Your task to perform on an android device: Open calendar and show me the fourth week of next month Image 0: 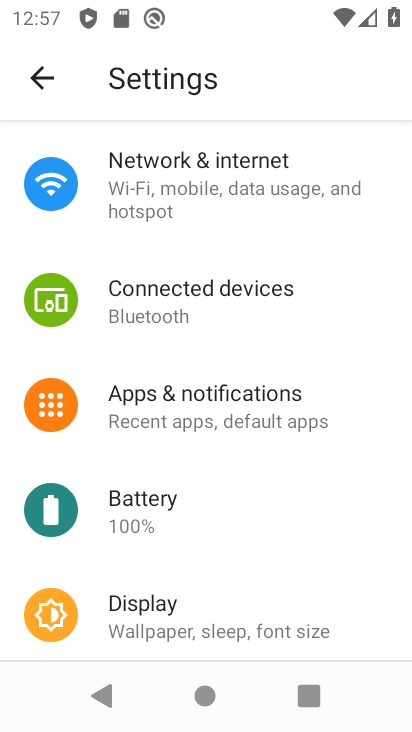
Step 0: press back button
Your task to perform on an android device: Open calendar and show me the fourth week of next month Image 1: 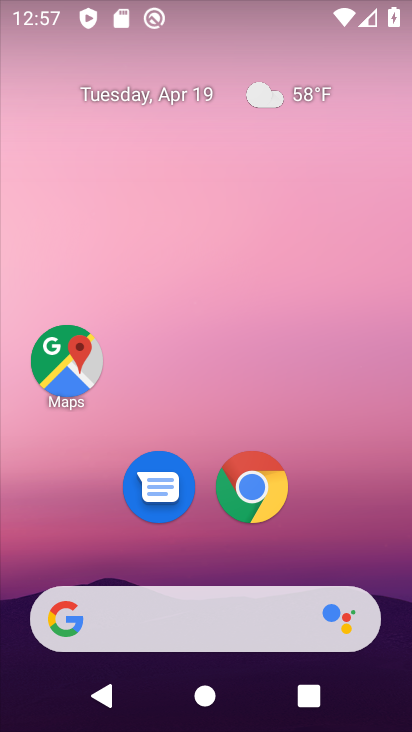
Step 1: drag from (204, 721) to (207, 29)
Your task to perform on an android device: Open calendar and show me the fourth week of next month Image 2: 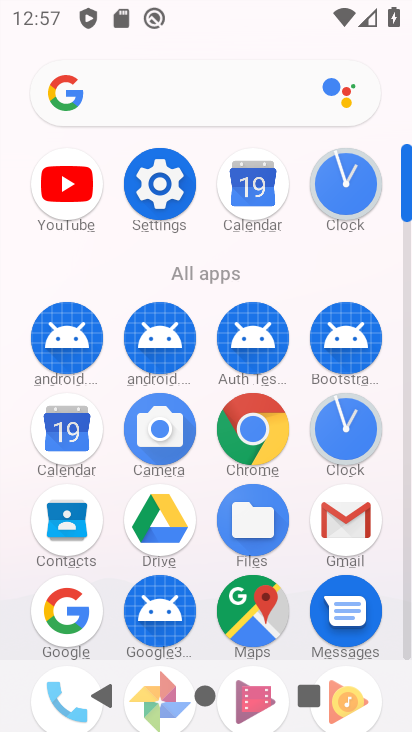
Step 2: drag from (205, 646) to (185, 211)
Your task to perform on an android device: Open calendar and show me the fourth week of next month Image 3: 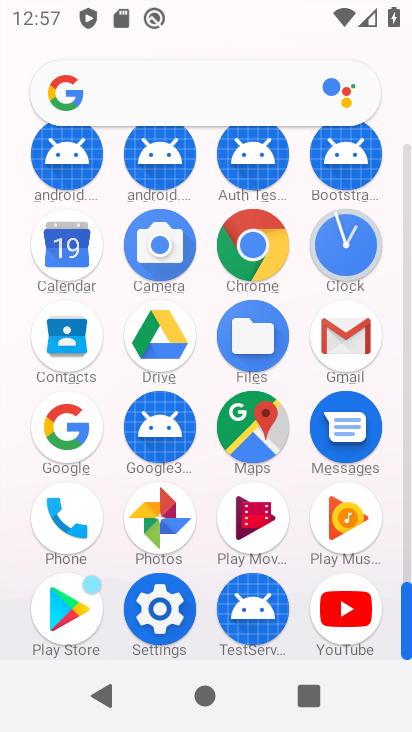
Step 3: click (71, 251)
Your task to perform on an android device: Open calendar and show me the fourth week of next month Image 4: 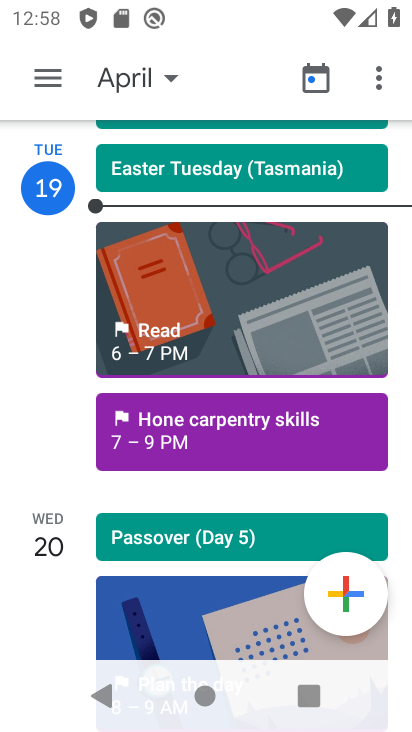
Step 4: click (136, 77)
Your task to perform on an android device: Open calendar and show me the fourth week of next month Image 5: 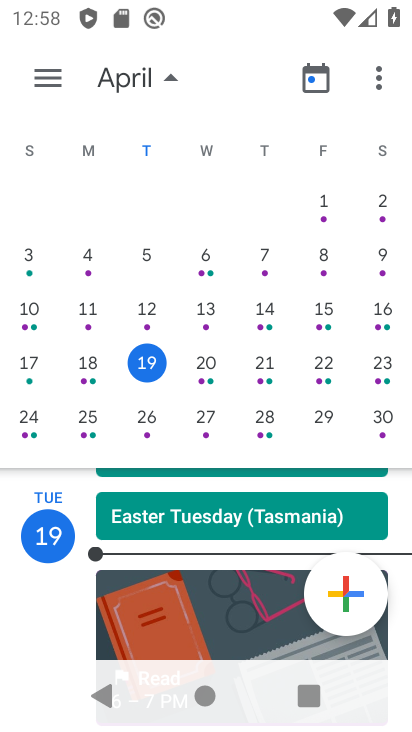
Step 5: click (89, 415)
Your task to perform on an android device: Open calendar and show me the fourth week of next month Image 6: 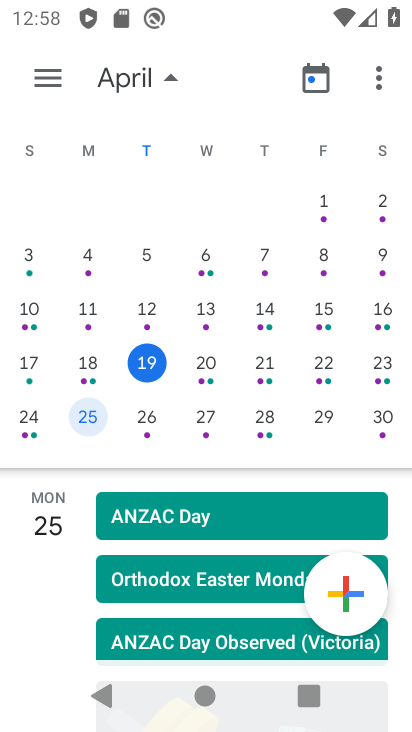
Step 6: task complete